Your task to perform on an android device: Open calendar and show me the third week of next month Image 0: 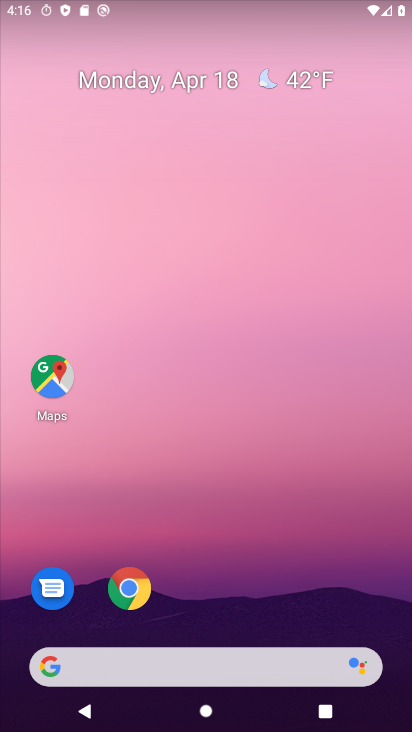
Step 0: click (156, 70)
Your task to perform on an android device: Open calendar and show me the third week of next month Image 1: 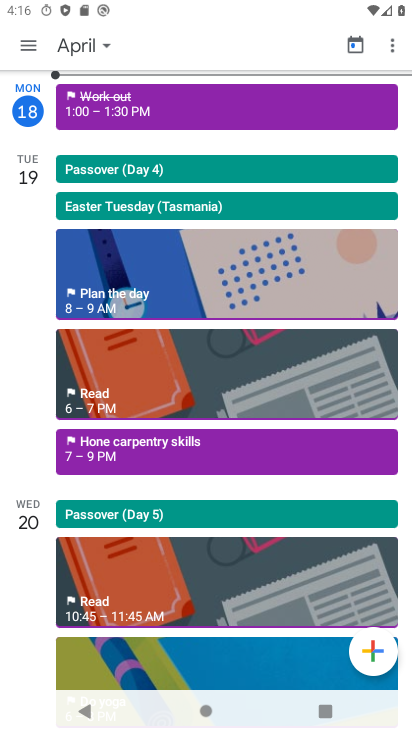
Step 1: click (114, 48)
Your task to perform on an android device: Open calendar and show me the third week of next month Image 2: 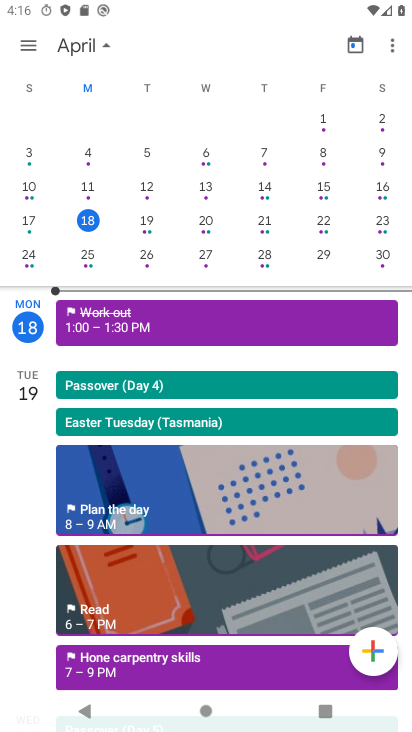
Step 2: drag from (405, 203) to (23, 165)
Your task to perform on an android device: Open calendar and show me the third week of next month Image 3: 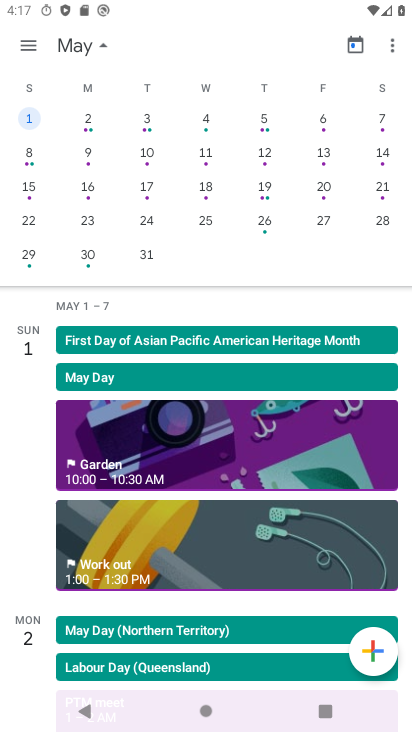
Step 3: drag from (377, 242) to (305, 271)
Your task to perform on an android device: Open calendar and show me the third week of next month Image 4: 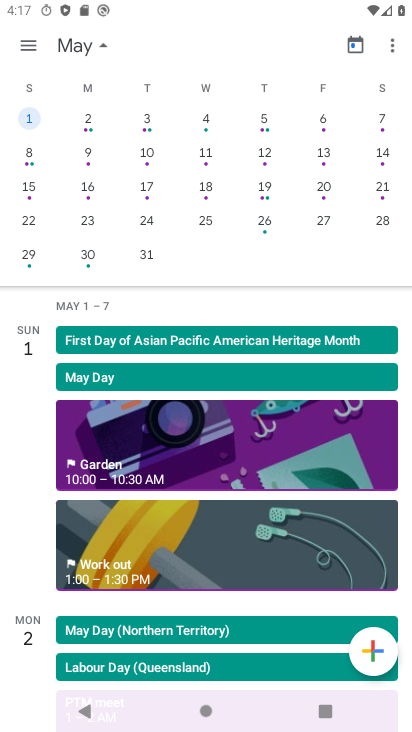
Step 4: click (329, 193)
Your task to perform on an android device: Open calendar and show me the third week of next month Image 5: 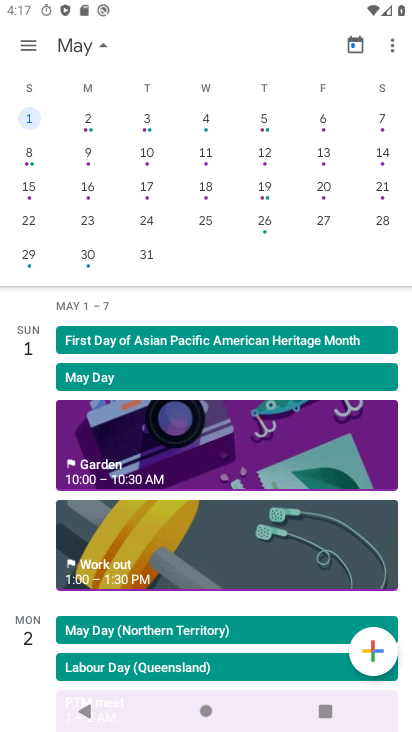
Step 5: click (324, 185)
Your task to perform on an android device: Open calendar and show me the third week of next month Image 6: 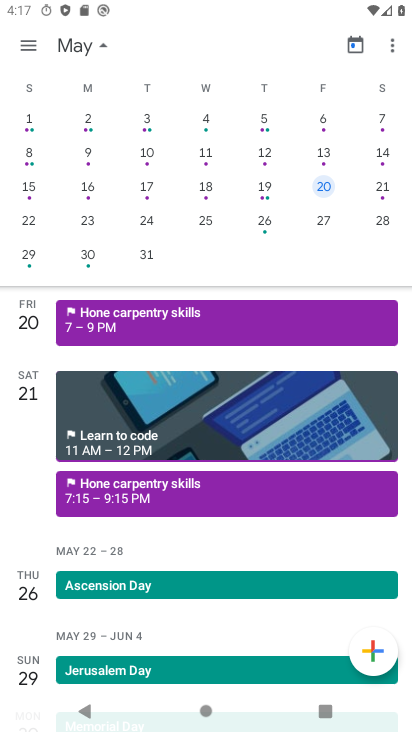
Step 6: task complete